Your task to perform on an android device: Add "bose soundlink" to the cart on walmart, then select checkout. Image 0: 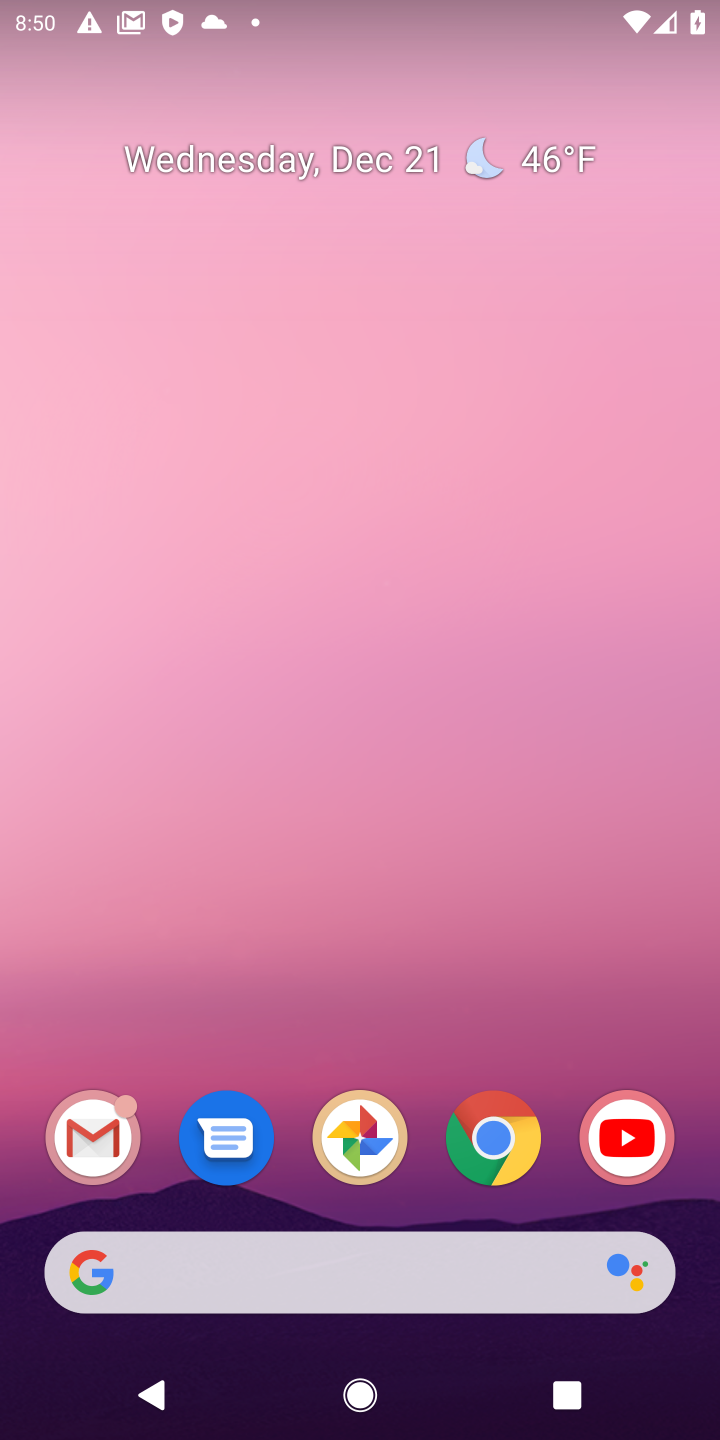
Step 0: click (494, 1143)
Your task to perform on an android device: Add "bose soundlink" to the cart on walmart, then select checkout. Image 1: 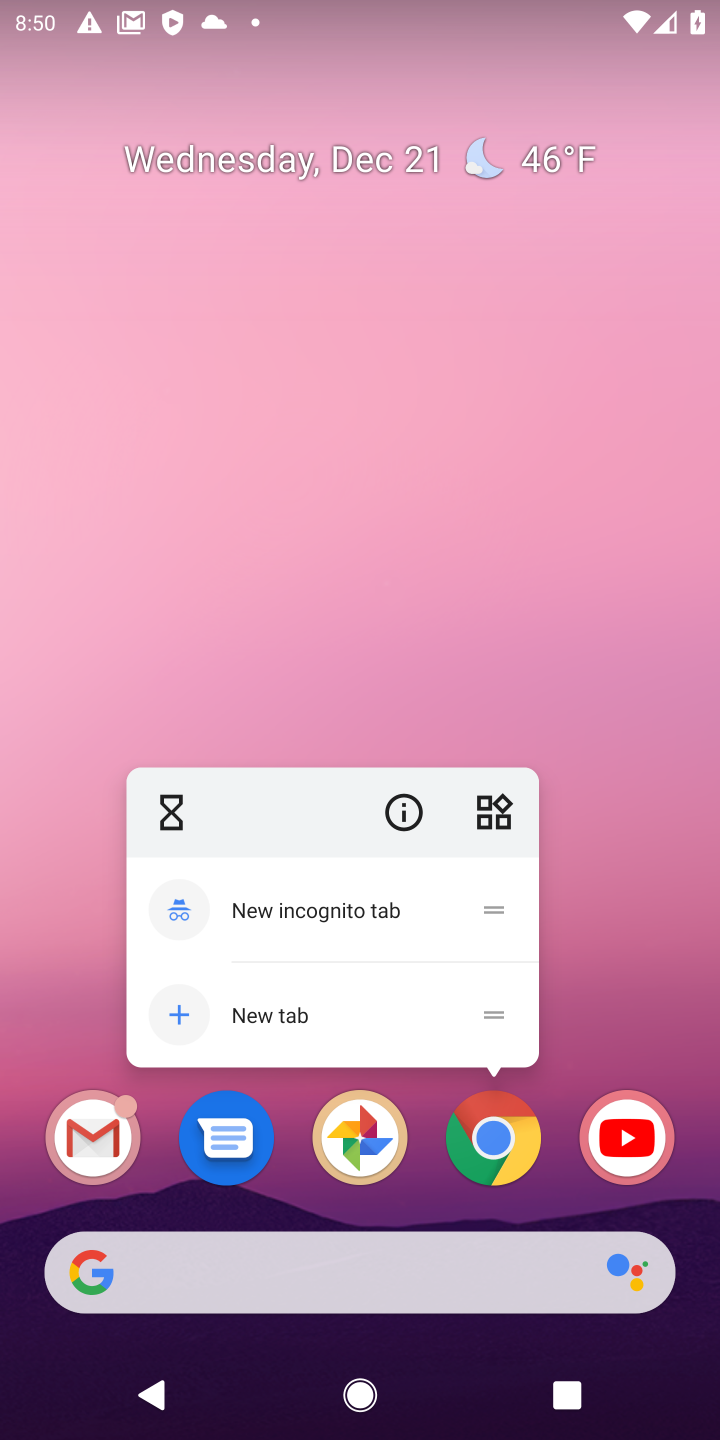
Step 1: click (492, 1147)
Your task to perform on an android device: Add "bose soundlink" to the cart on walmart, then select checkout. Image 2: 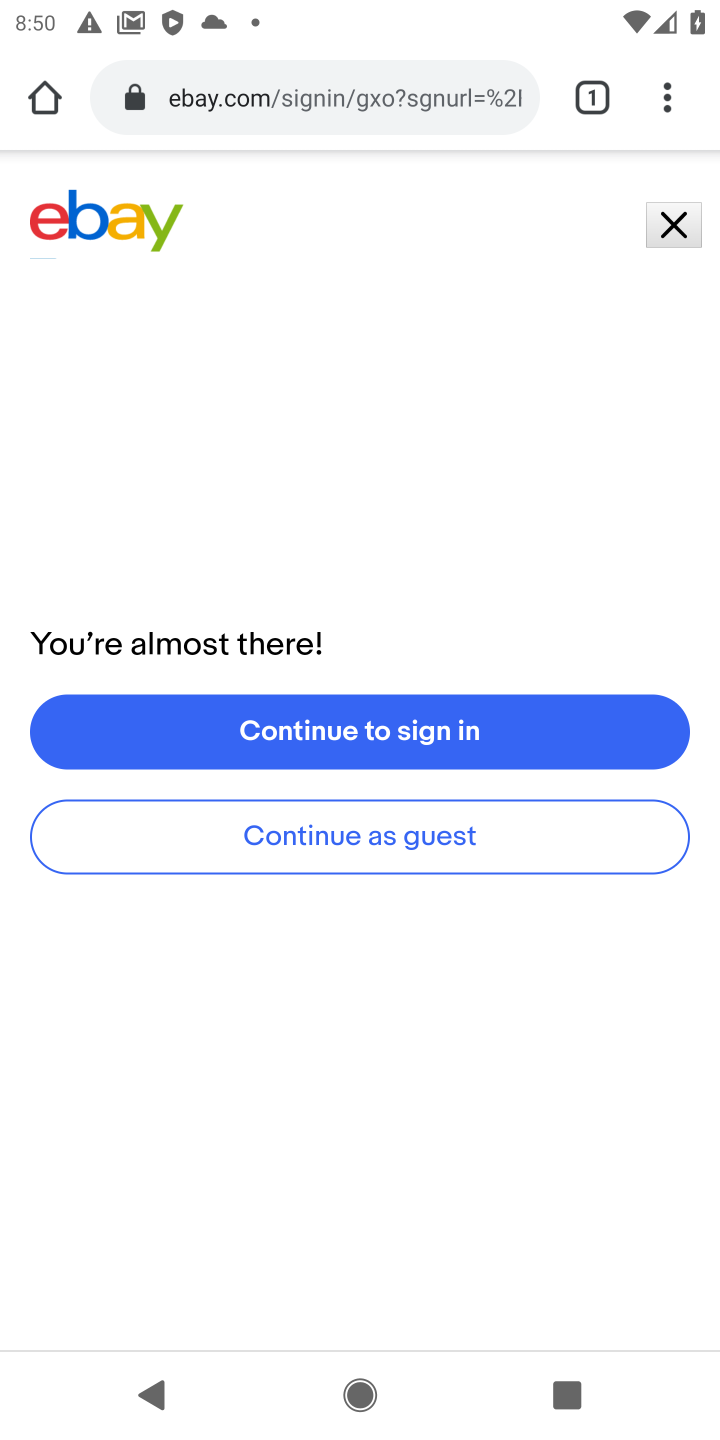
Step 2: click (299, 103)
Your task to perform on an android device: Add "bose soundlink" to the cart on walmart, then select checkout. Image 3: 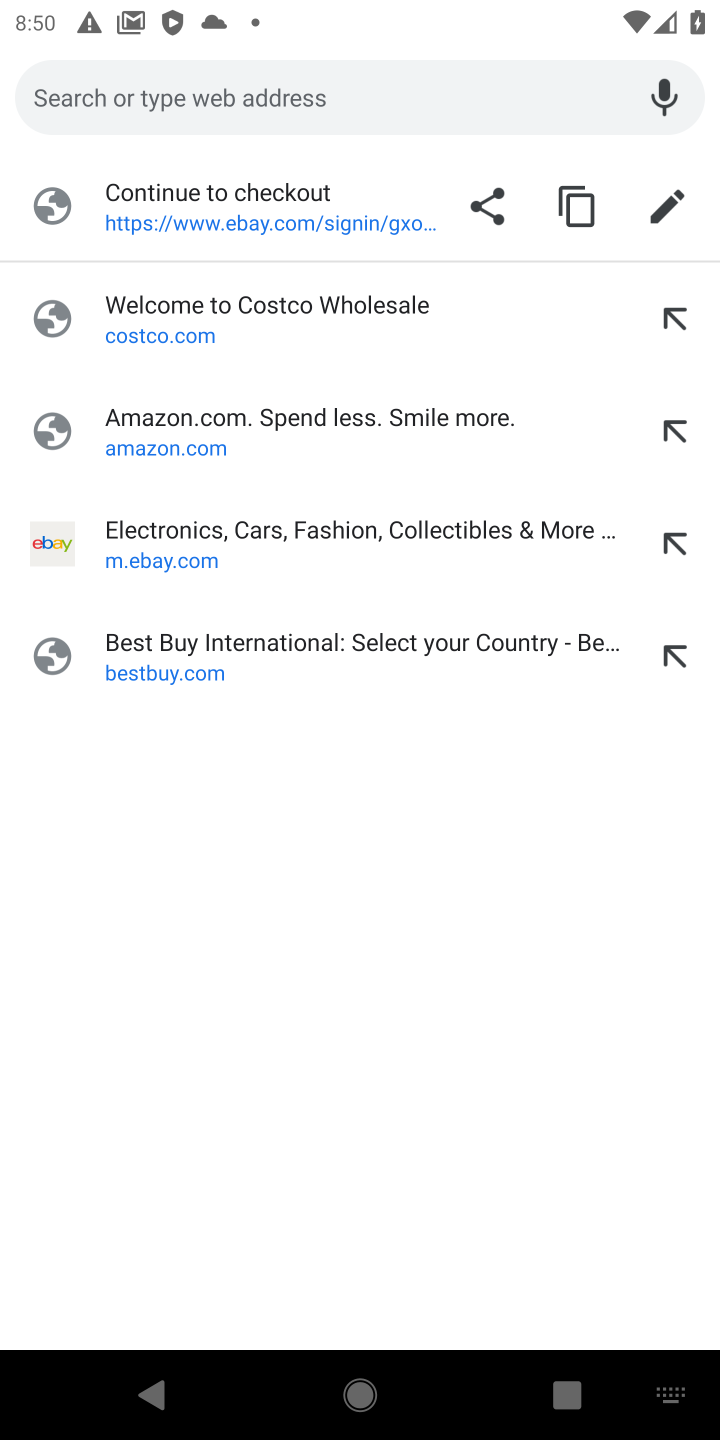
Step 3: type "walmart.com"
Your task to perform on an android device: Add "bose soundlink" to the cart on walmart, then select checkout. Image 4: 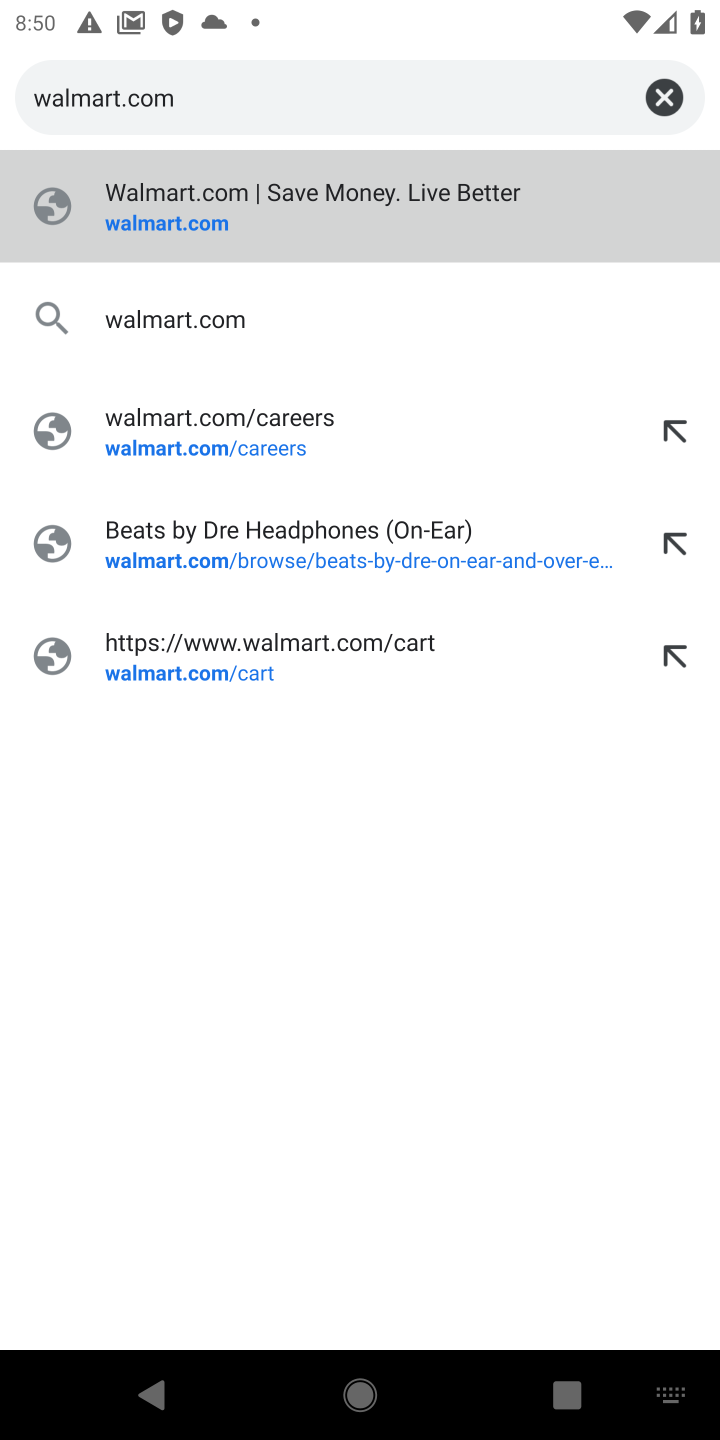
Step 4: click (134, 218)
Your task to perform on an android device: Add "bose soundlink" to the cart on walmart, then select checkout. Image 5: 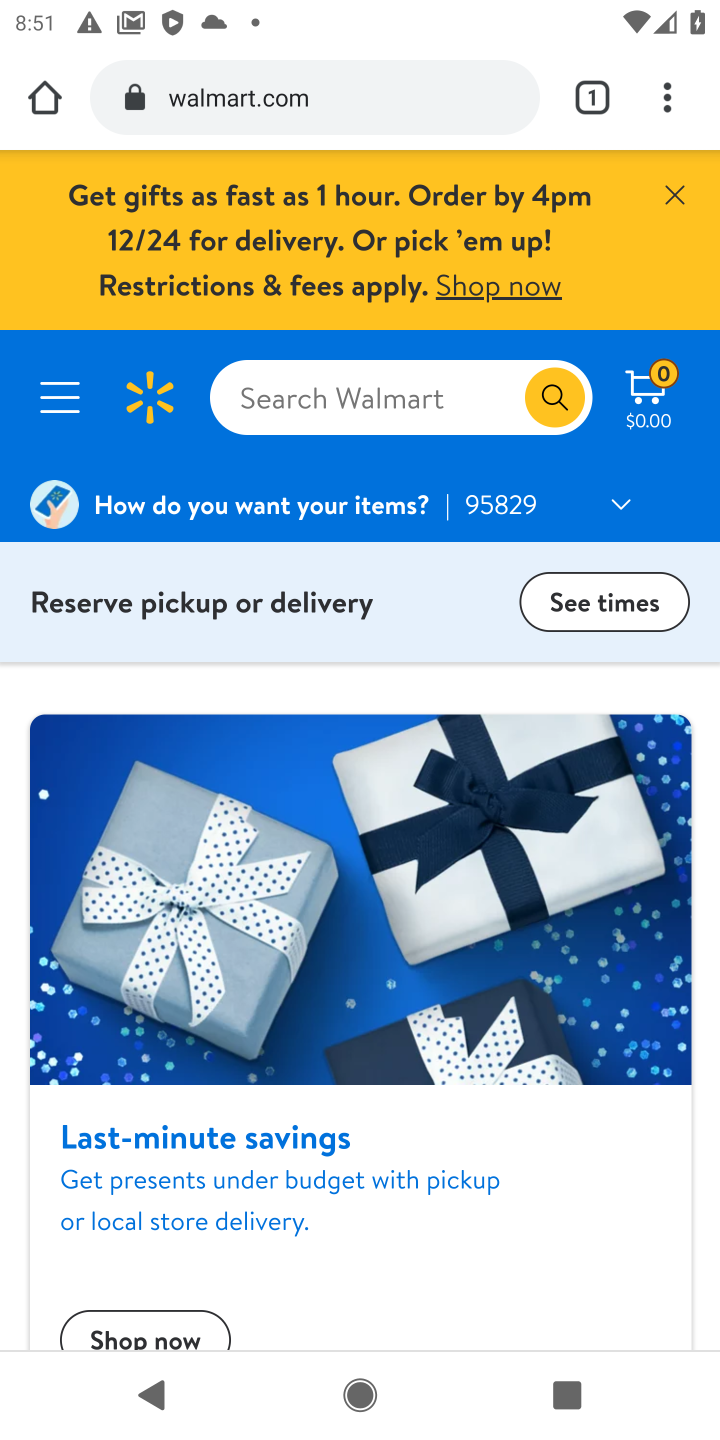
Step 5: click (315, 392)
Your task to perform on an android device: Add "bose soundlink" to the cart on walmart, then select checkout. Image 6: 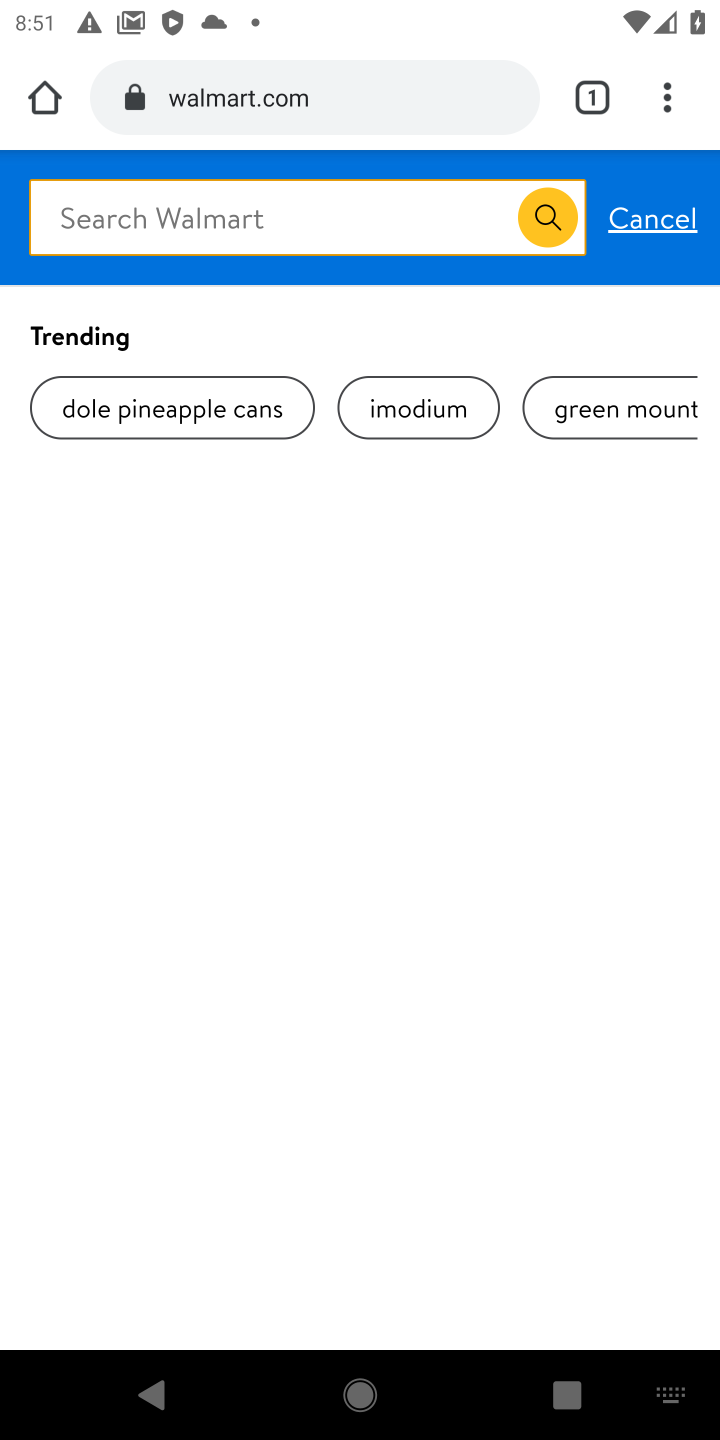
Step 6: type "bose soundlink"
Your task to perform on an android device: Add "bose soundlink" to the cart on walmart, then select checkout. Image 7: 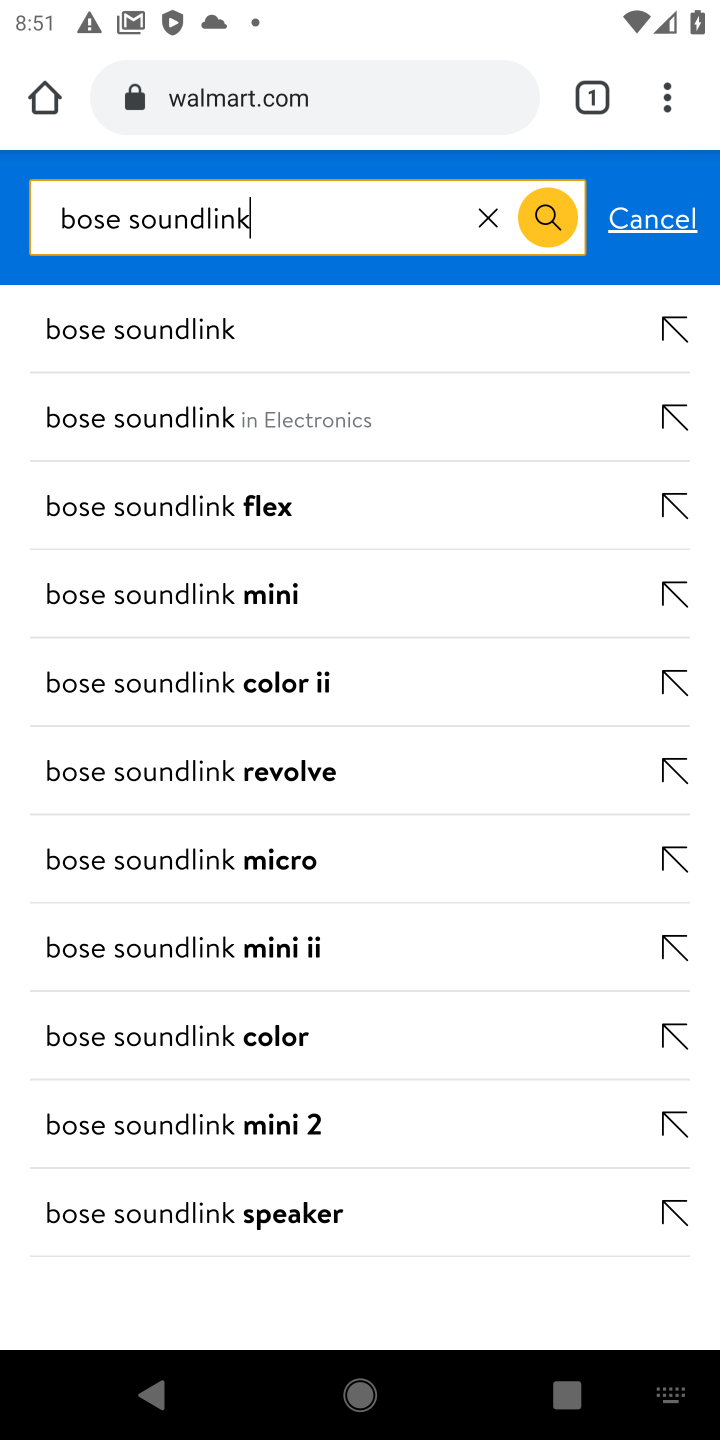
Step 7: click (136, 333)
Your task to perform on an android device: Add "bose soundlink" to the cart on walmart, then select checkout. Image 8: 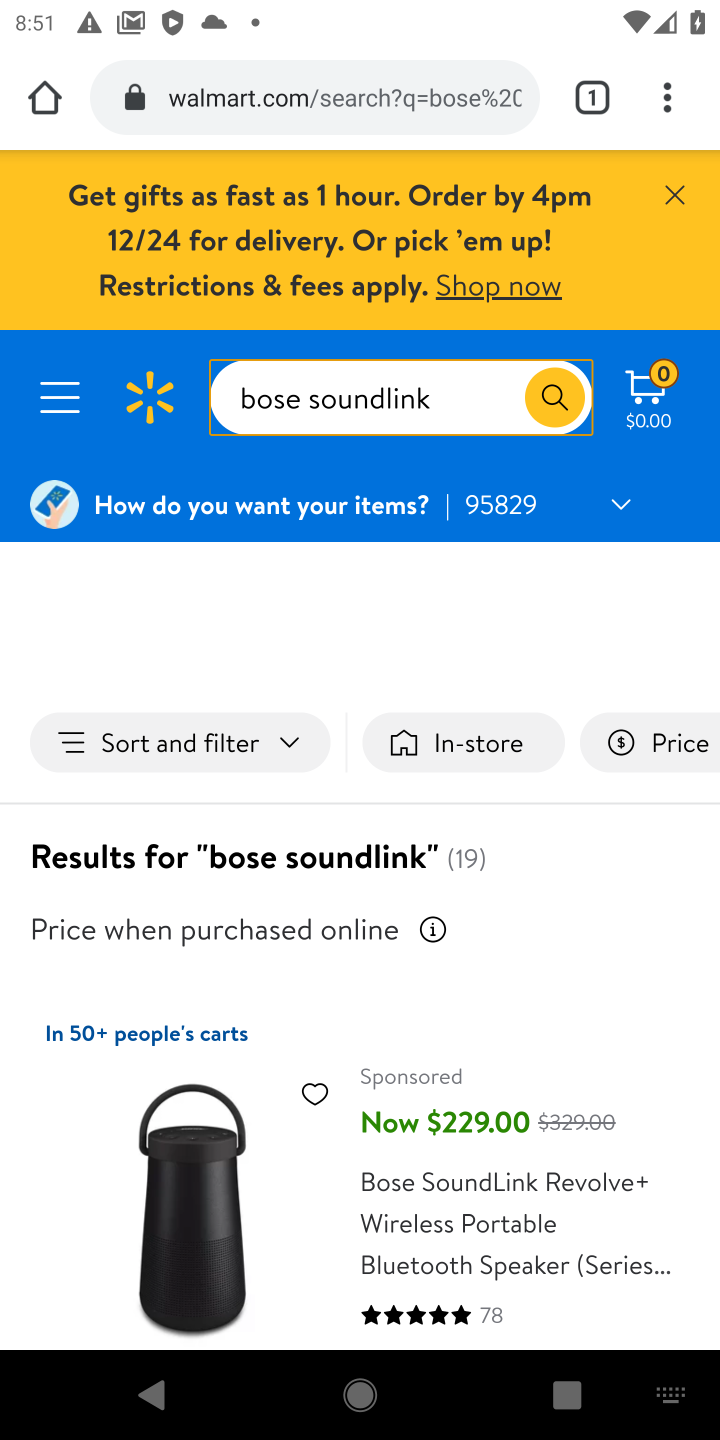
Step 8: drag from (268, 1009) to (260, 567)
Your task to perform on an android device: Add "bose soundlink" to the cart on walmart, then select checkout. Image 9: 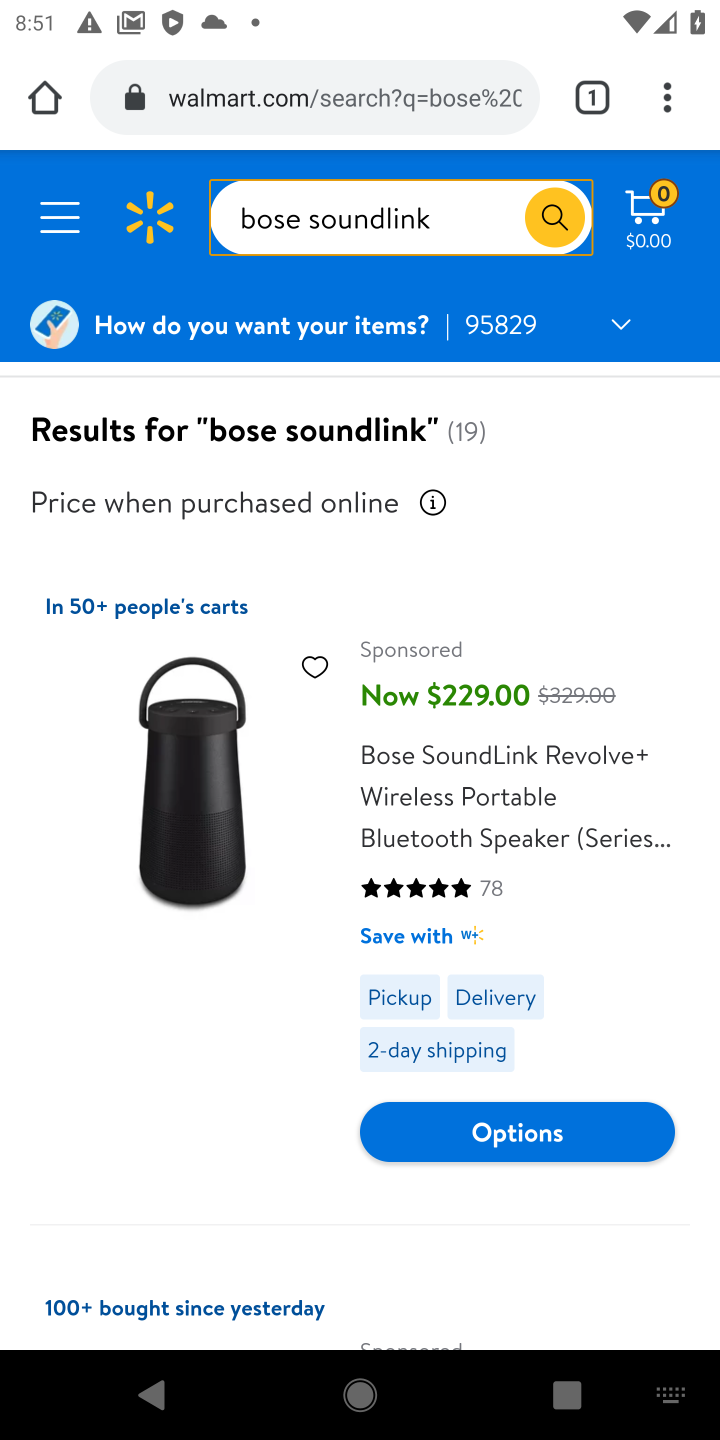
Step 9: click (434, 805)
Your task to perform on an android device: Add "bose soundlink" to the cart on walmart, then select checkout. Image 10: 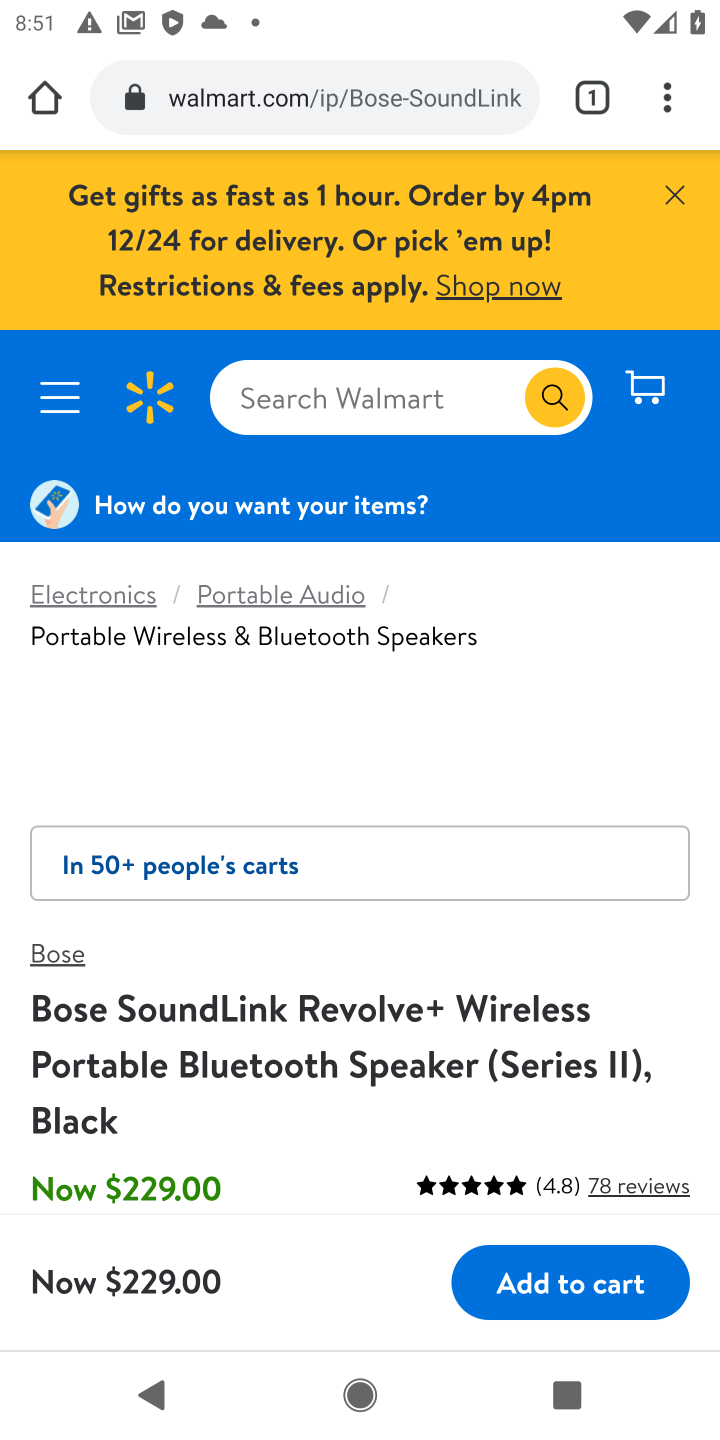
Step 10: click (565, 1294)
Your task to perform on an android device: Add "bose soundlink" to the cart on walmart, then select checkout. Image 11: 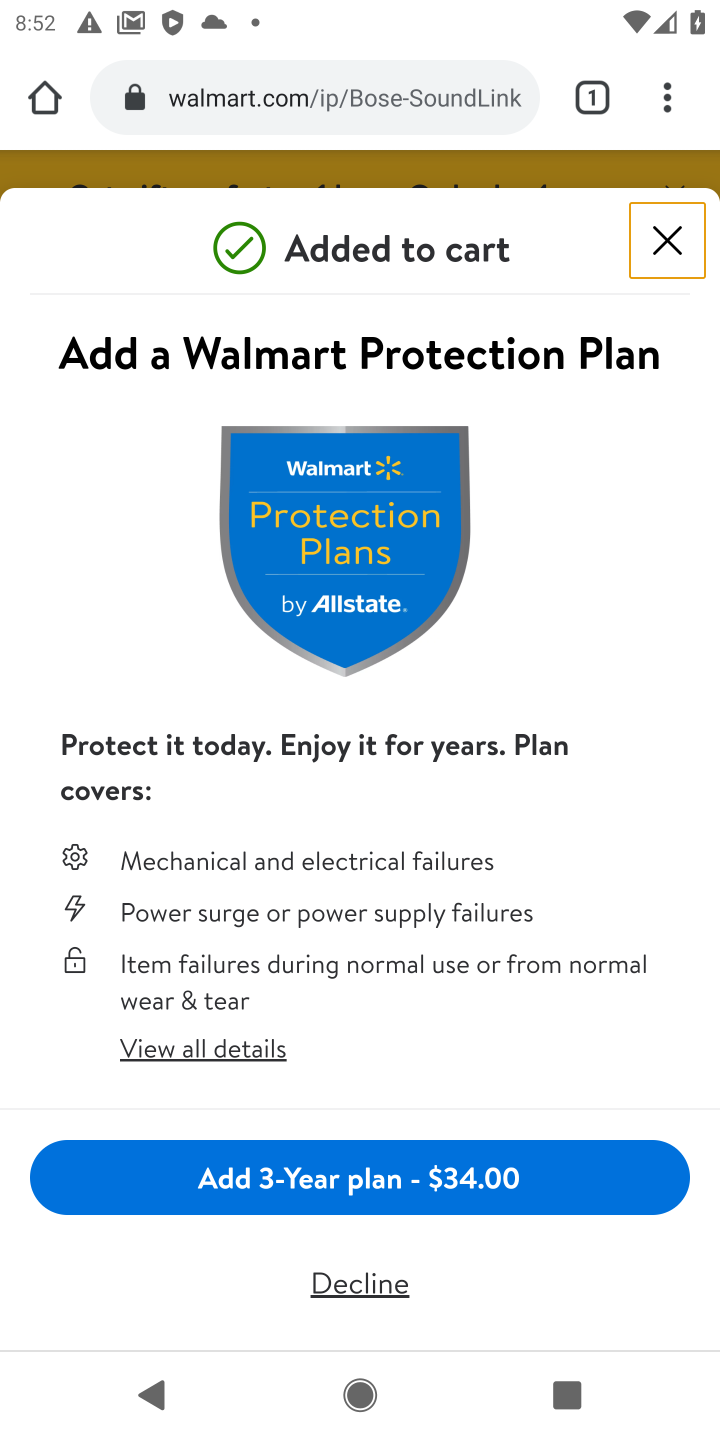
Step 11: click (668, 252)
Your task to perform on an android device: Add "bose soundlink" to the cart on walmart, then select checkout. Image 12: 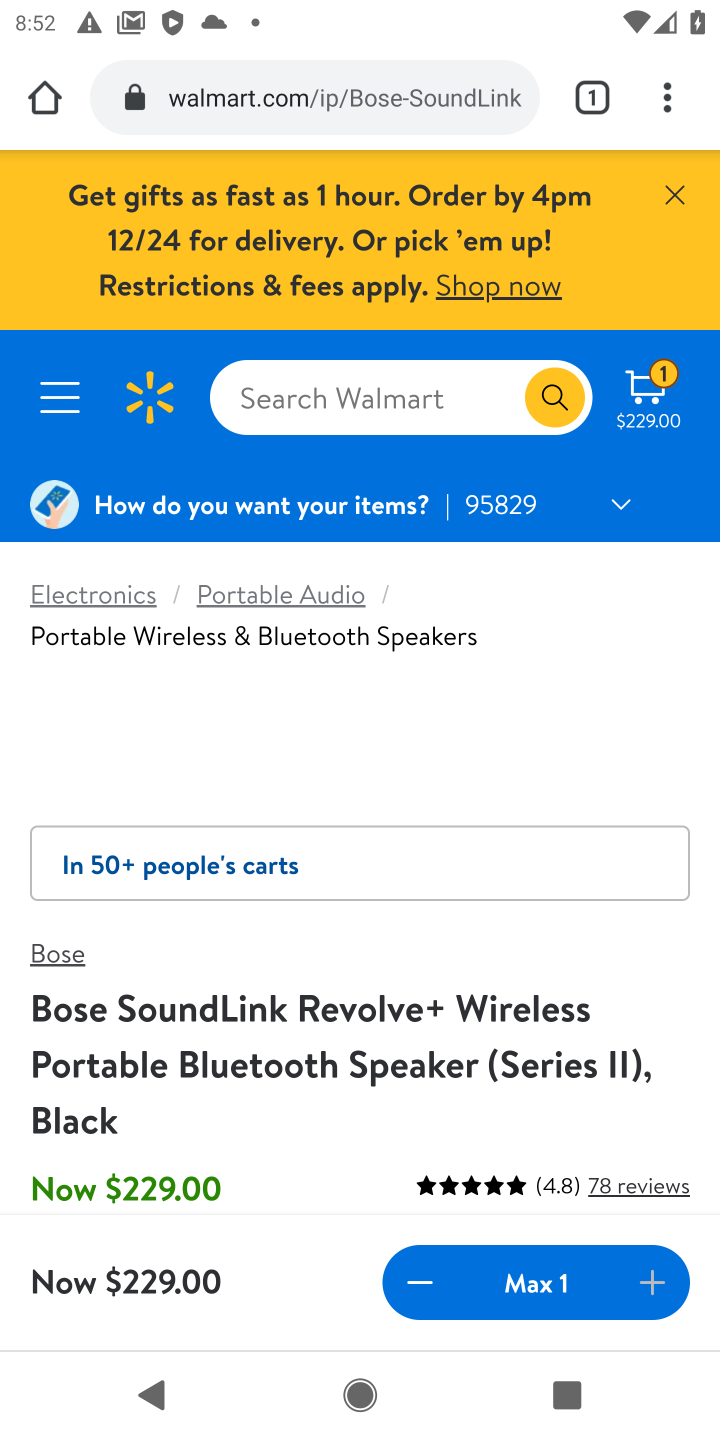
Step 12: click (649, 389)
Your task to perform on an android device: Add "bose soundlink" to the cart on walmart, then select checkout. Image 13: 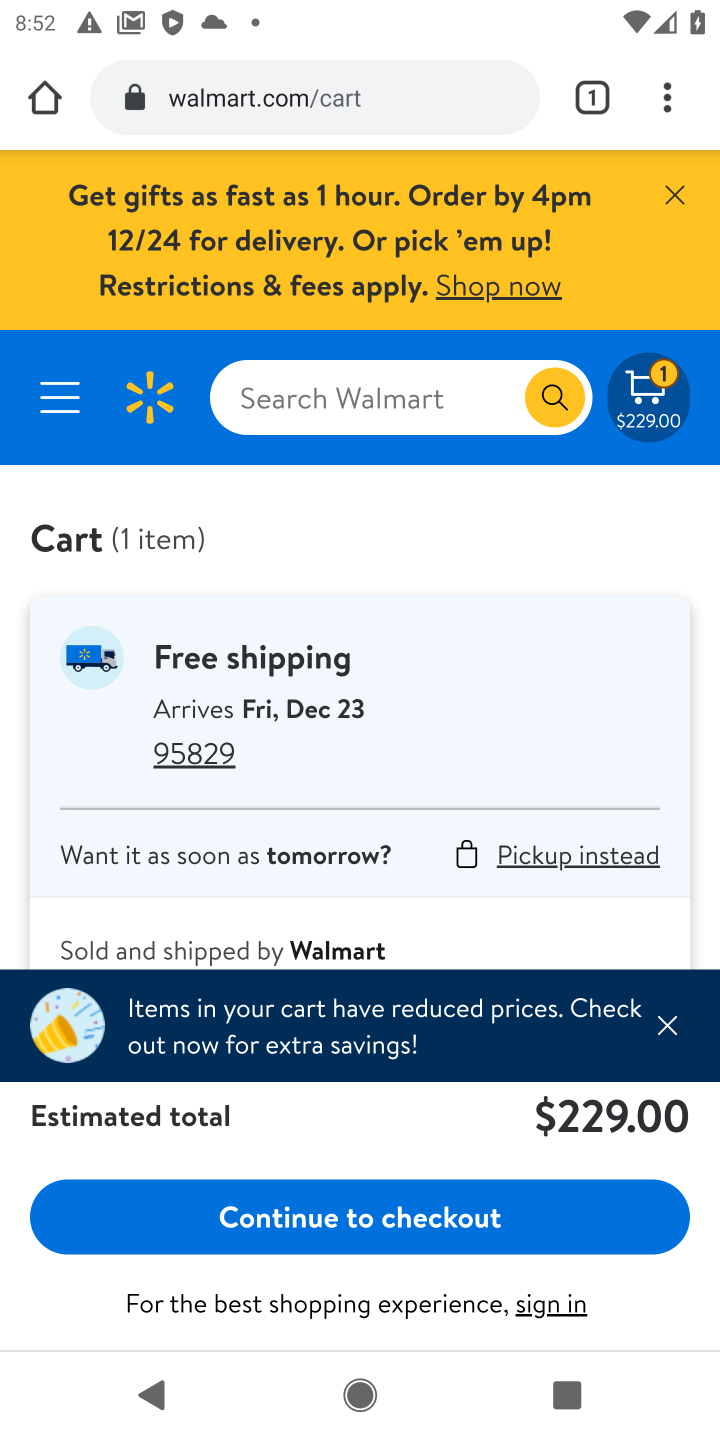
Step 13: click (331, 1218)
Your task to perform on an android device: Add "bose soundlink" to the cart on walmart, then select checkout. Image 14: 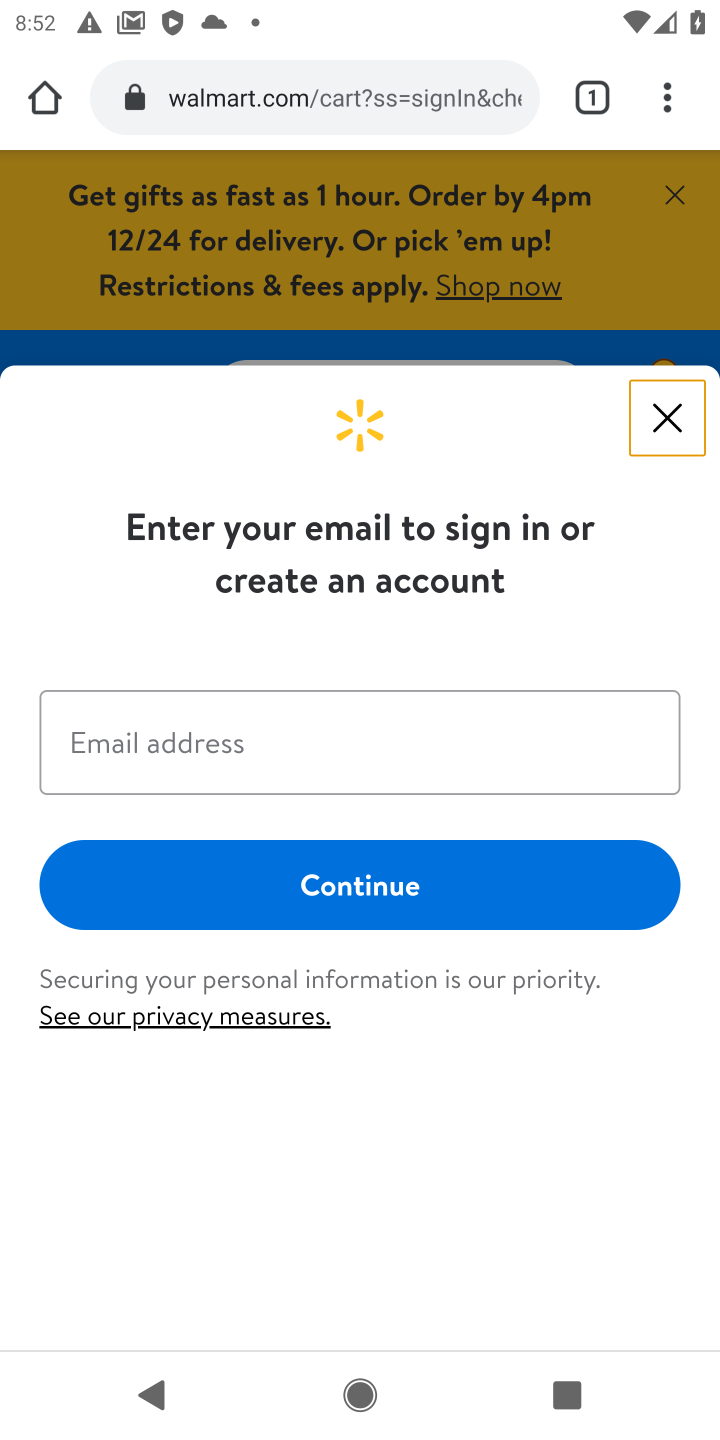
Step 14: task complete